Your task to perform on an android device: Go to eBay Image 0: 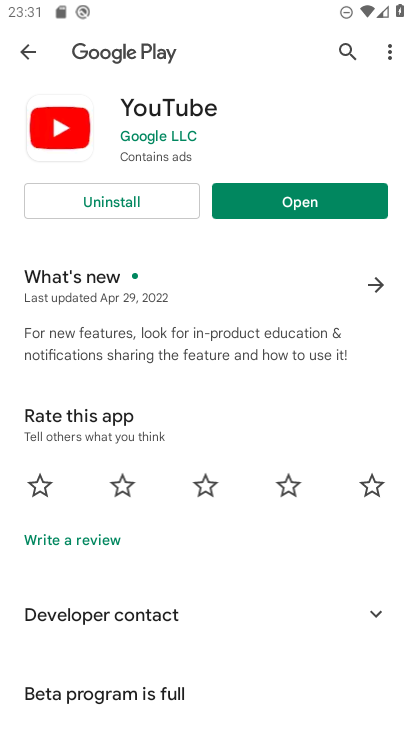
Step 0: press home button
Your task to perform on an android device: Go to eBay Image 1: 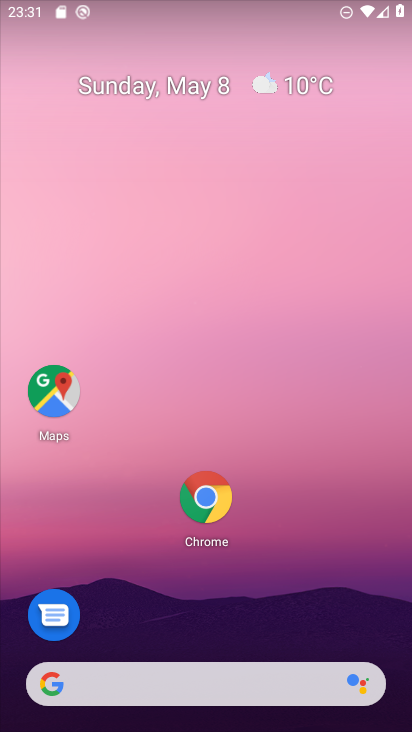
Step 1: drag from (311, 550) to (356, 12)
Your task to perform on an android device: Go to eBay Image 2: 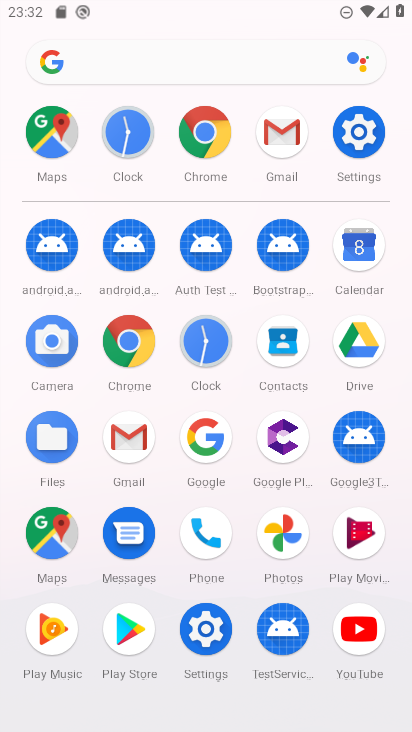
Step 2: click (130, 352)
Your task to perform on an android device: Go to eBay Image 3: 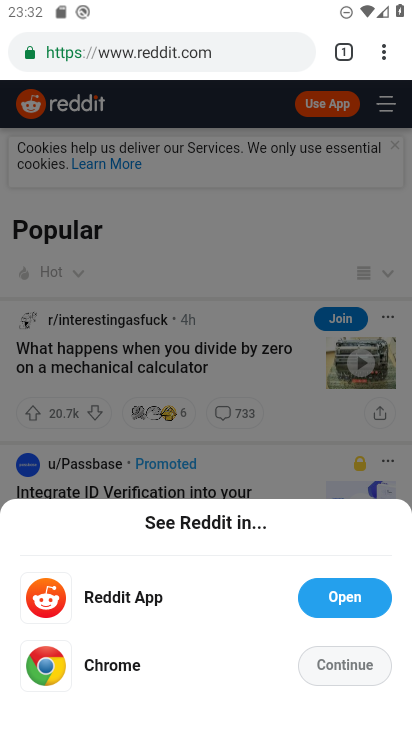
Step 3: click (195, 47)
Your task to perform on an android device: Go to eBay Image 4: 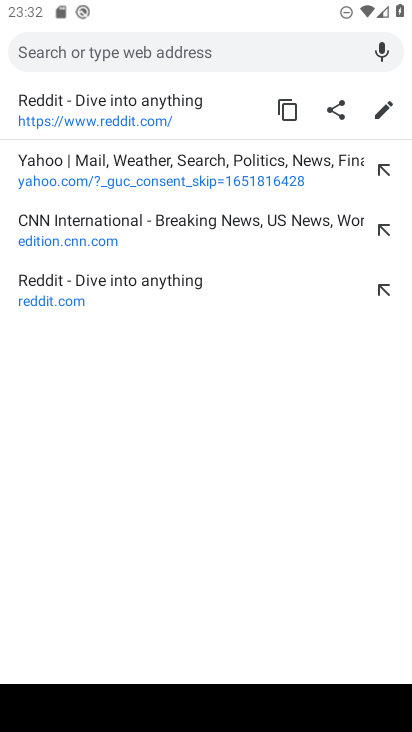
Step 4: type "ebay"
Your task to perform on an android device: Go to eBay Image 5: 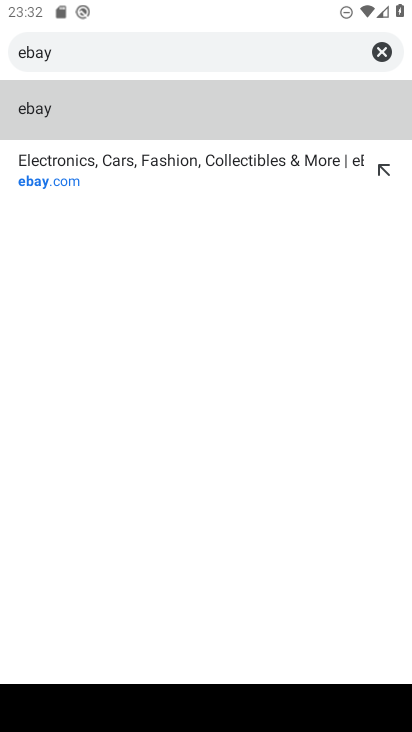
Step 5: click (69, 175)
Your task to perform on an android device: Go to eBay Image 6: 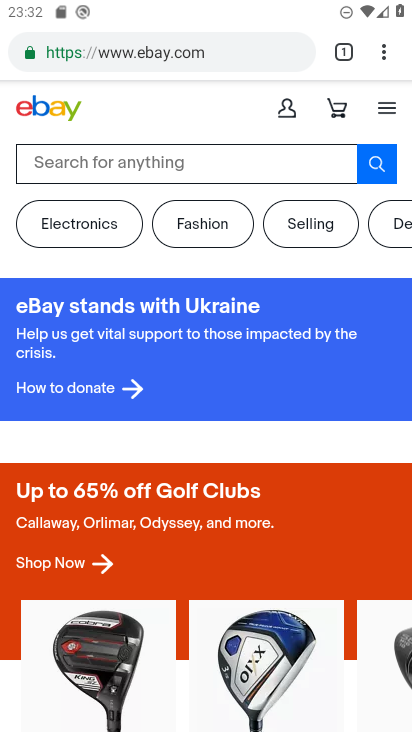
Step 6: task complete